Your task to perform on an android device: Show me the alarms in the clock app Image 0: 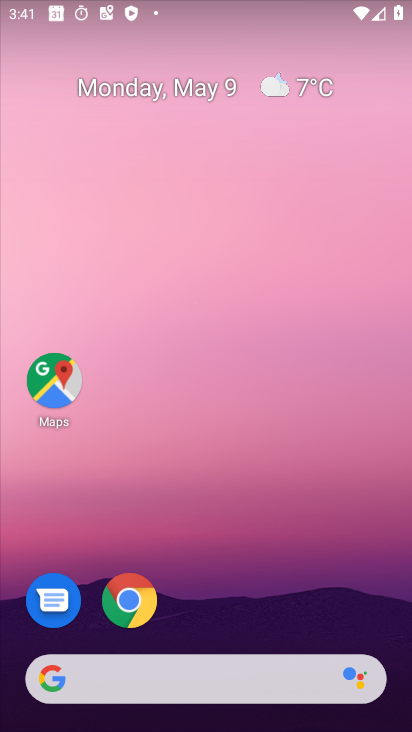
Step 0: drag from (263, 550) to (271, 190)
Your task to perform on an android device: Show me the alarms in the clock app Image 1: 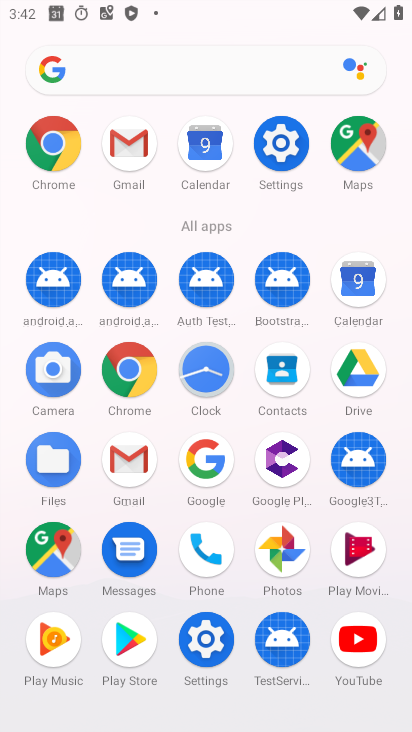
Step 1: click (204, 364)
Your task to perform on an android device: Show me the alarms in the clock app Image 2: 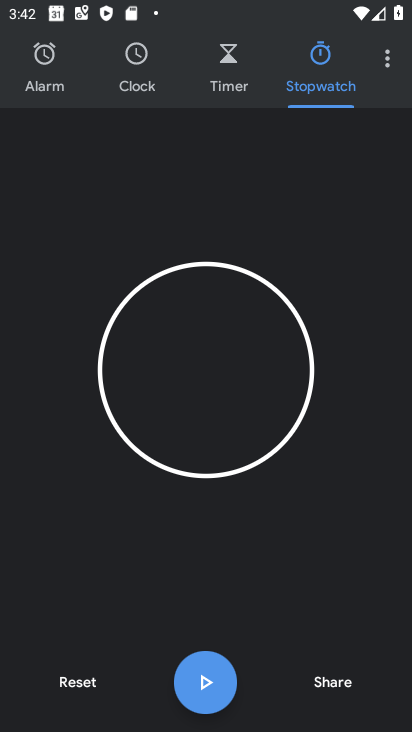
Step 2: click (23, 64)
Your task to perform on an android device: Show me the alarms in the clock app Image 3: 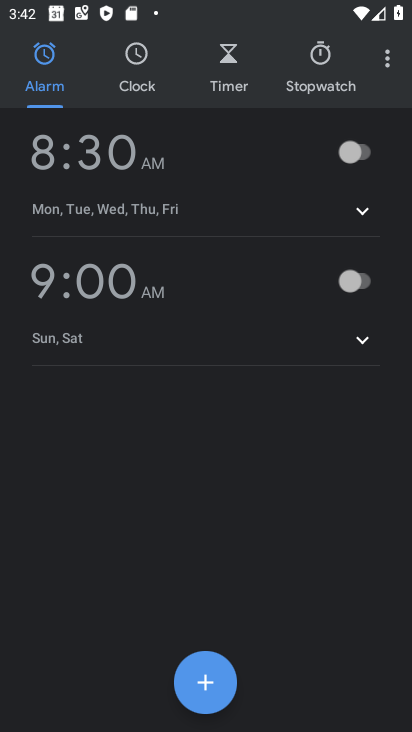
Step 3: task complete